Your task to perform on an android device: Go to network settings Image 0: 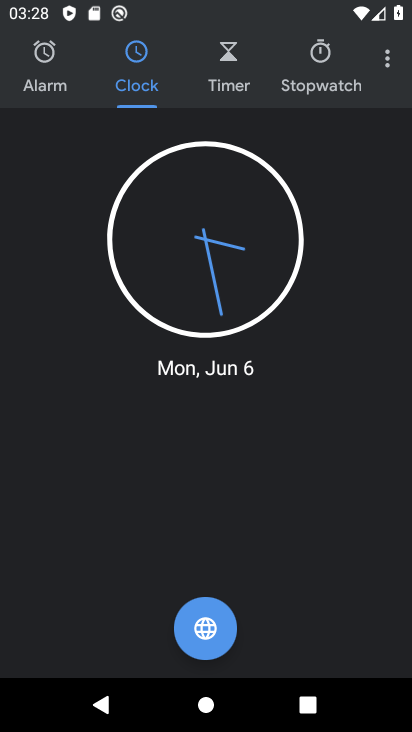
Step 0: press home button
Your task to perform on an android device: Go to network settings Image 1: 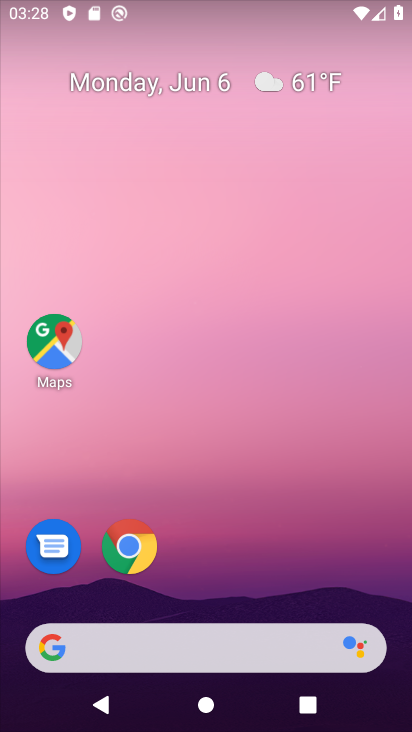
Step 1: drag from (240, 606) to (302, 64)
Your task to perform on an android device: Go to network settings Image 2: 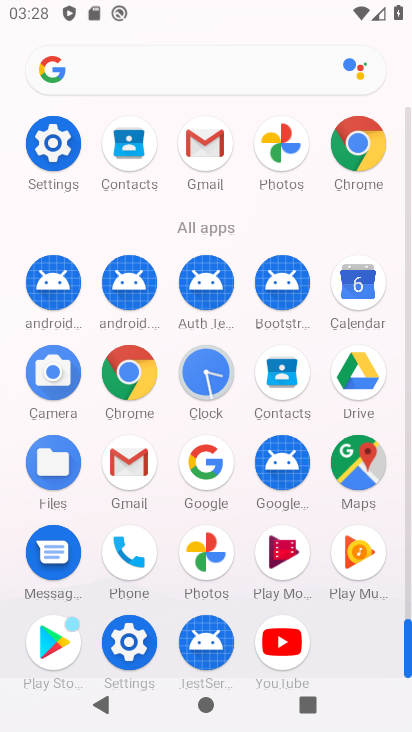
Step 2: click (47, 148)
Your task to perform on an android device: Go to network settings Image 3: 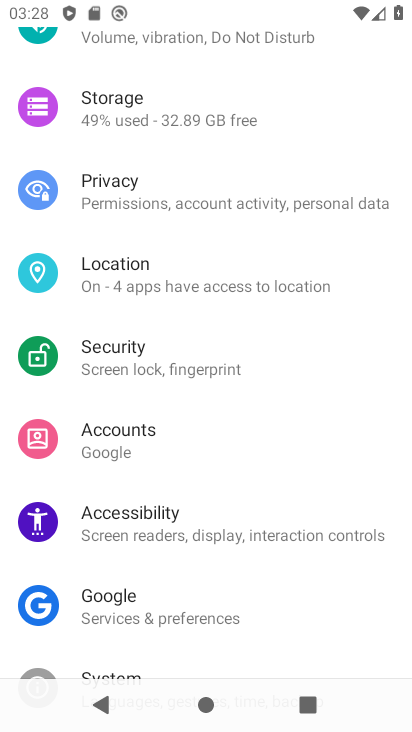
Step 3: drag from (351, 79) to (251, 725)
Your task to perform on an android device: Go to network settings Image 4: 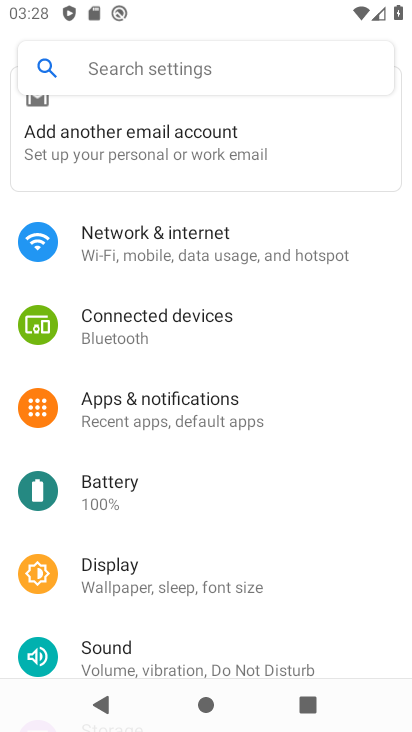
Step 4: click (146, 244)
Your task to perform on an android device: Go to network settings Image 5: 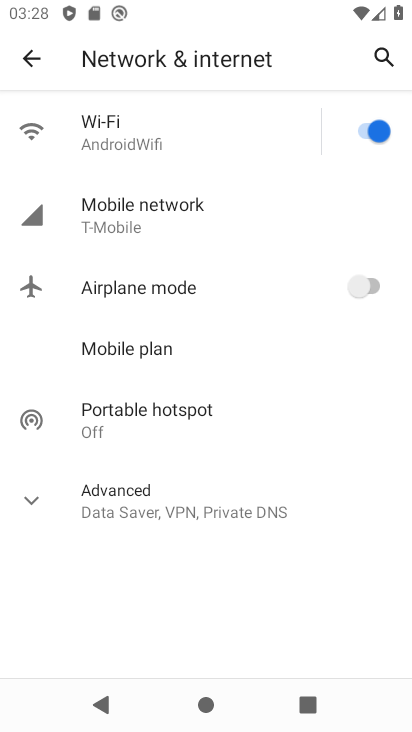
Step 5: task complete